Your task to perform on an android device: check battery use Image 0: 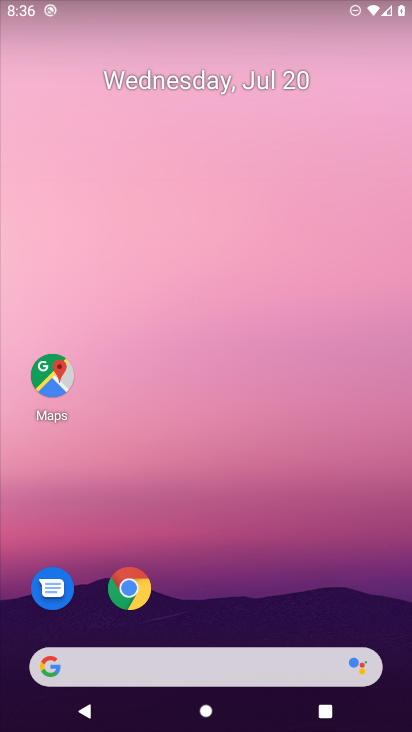
Step 0: drag from (44, 625) to (330, 71)
Your task to perform on an android device: check battery use Image 1: 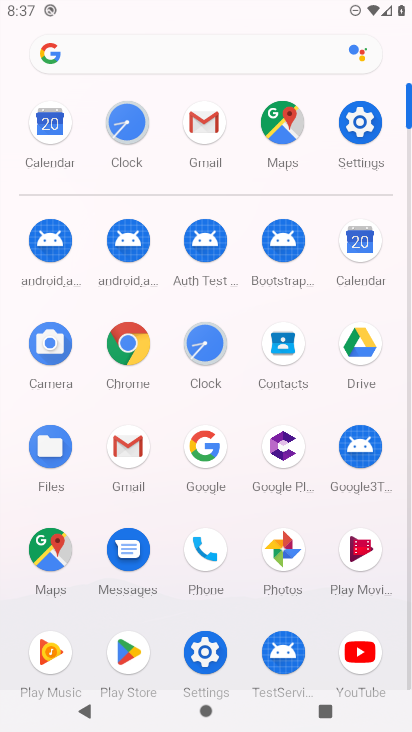
Step 1: click (206, 650)
Your task to perform on an android device: check battery use Image 2: 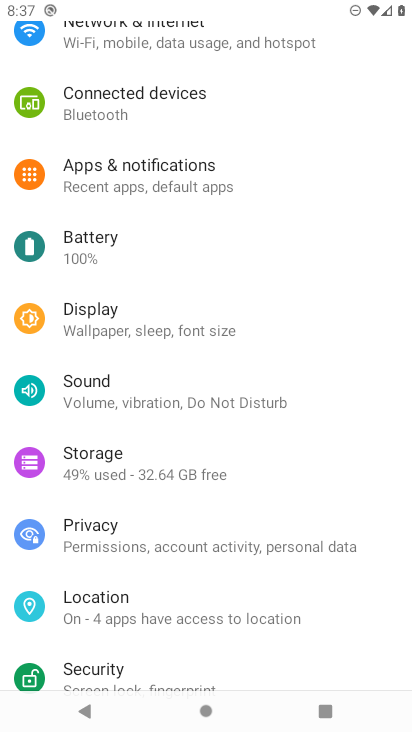
Step 2: click (103, 243)
Your task to perform on an android device: check battery use Image 3: 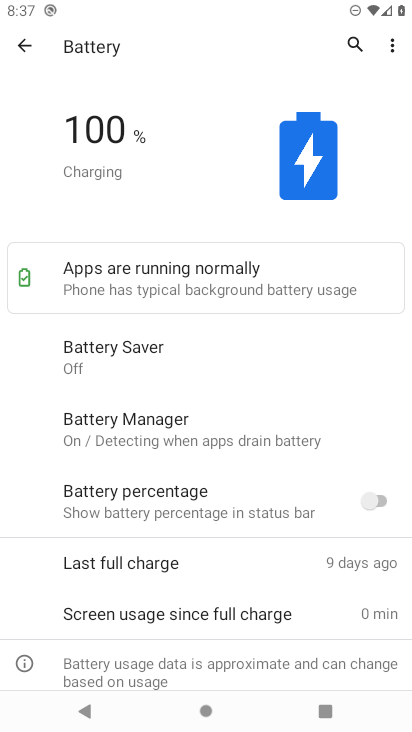
Step 3: task complete